Your task to perform on an android device: Search for Mexican restaurants on Maps Image 0: 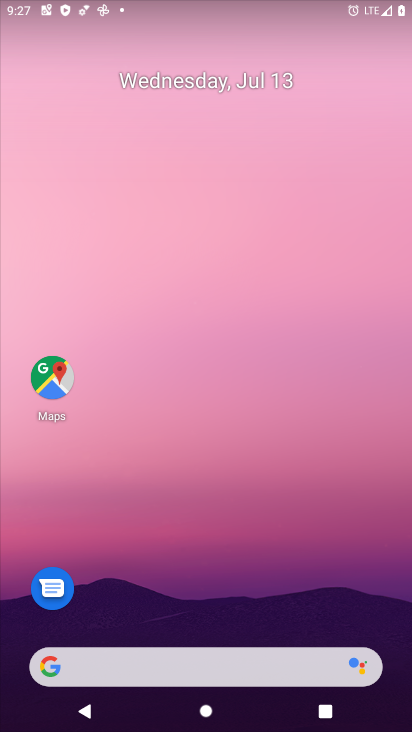
Step 0: click (60, 384)
Your task to perform on an android device: Search for Mexican restaurants on Maps Image 1: 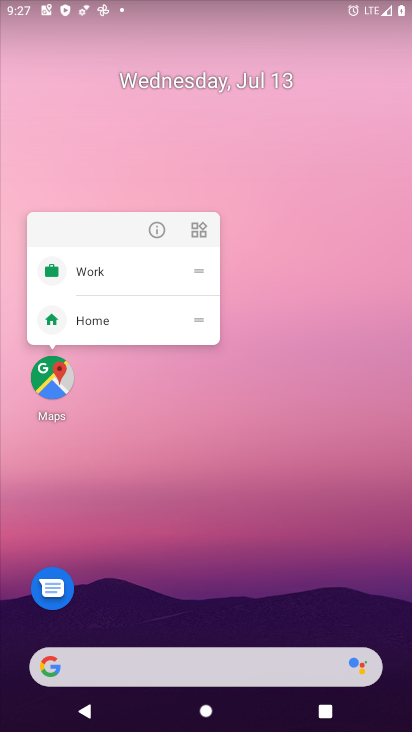
Step 1: click (47, 382)
Your task to perform on an android device: Search for Mexican restaurants on Maps Image 2: 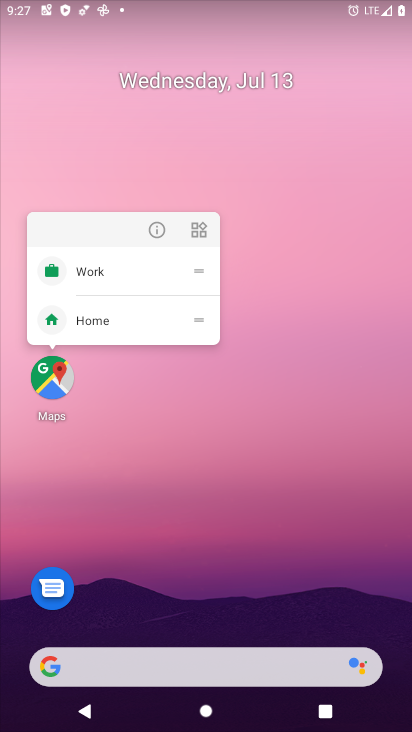
Step 2: click (47, 382)
Your task to perform on an android device: Search for Mexican restaurants on Maps Image 3: 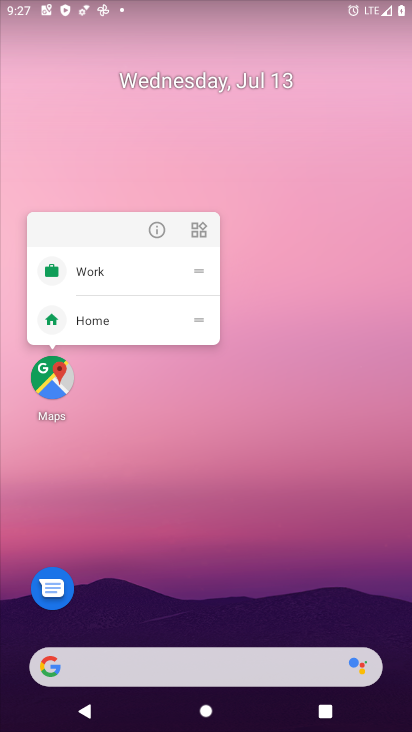
Step 3: click (47, 382)
Your task to perform on an android device: Search for Mexican restaurants on Maps Image 4: 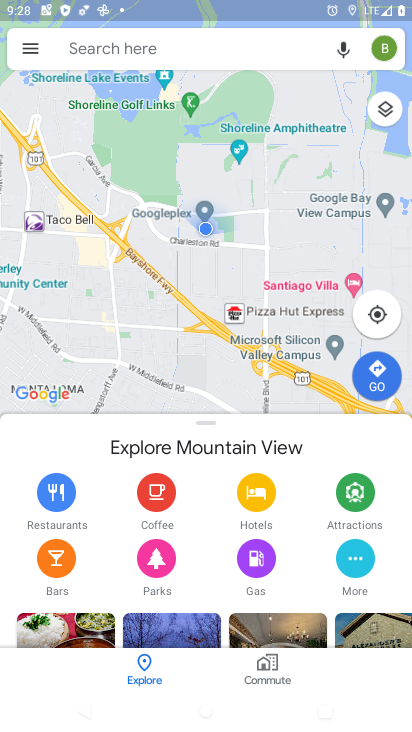
Step 4: click (187, 43)
Your task to perform on an android device: Search for Mexican restaurants on Maps Image 5: 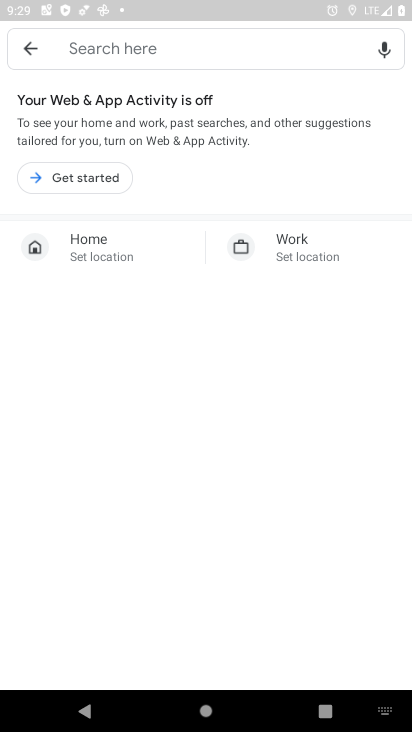
Step 5: type "mexican restaurants"
Your task to perform on an android device: Search for Mexican restaurants on Maps Image 6: 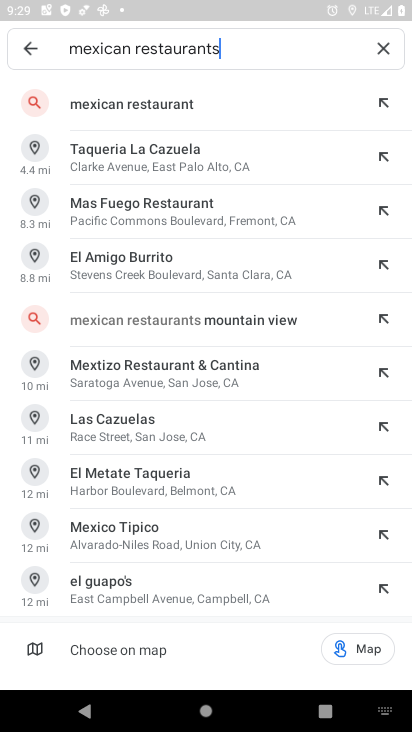
Step 6: click (161, 99)
Your task to perform on an android device: Search for Mexican restaurants on Maps Image 7: 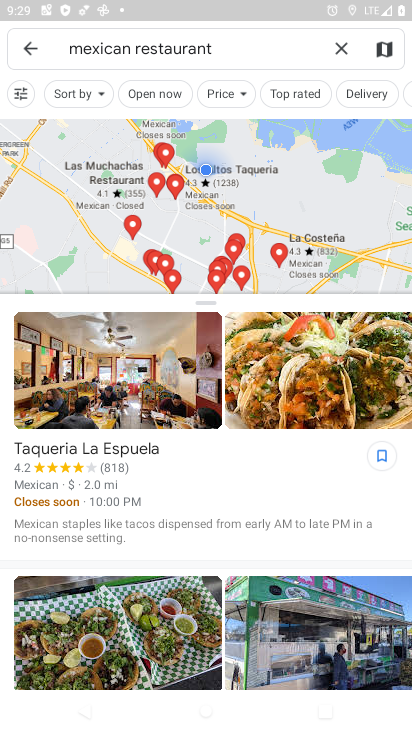
Step 7: task complete